Your task to perform on an android device: find photos in the google photos app Image 0: 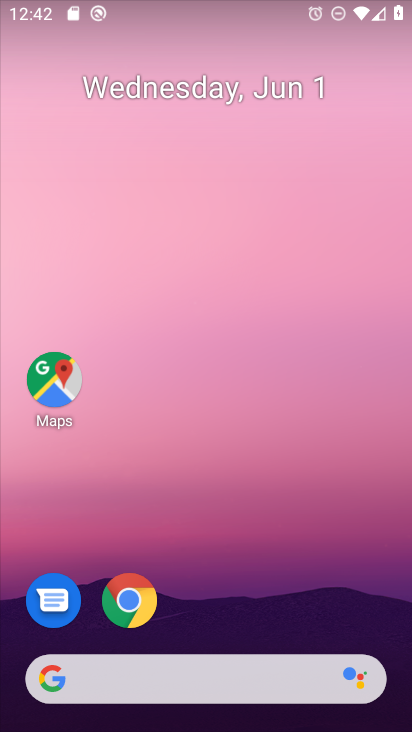
Step 0: drag from (216, 632) to (278, 21)
Your task to perform on an android device: find photos in the google photos app Image 1: 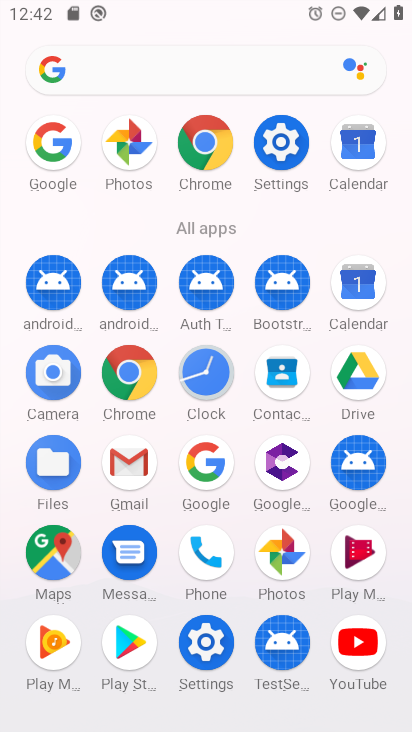
Step 1: click (286, 543)
Your task to perform on an android device: find photos in the google photos app Image 2: 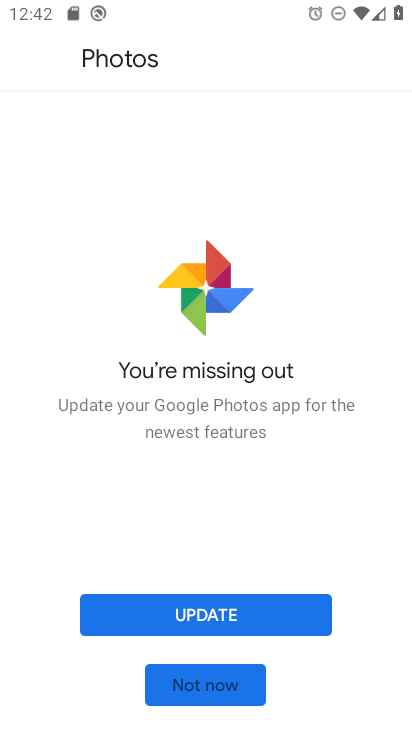
Step 2: click (206, 612)
Your task to perform on an android device: find photos in the google photos app Image 3: 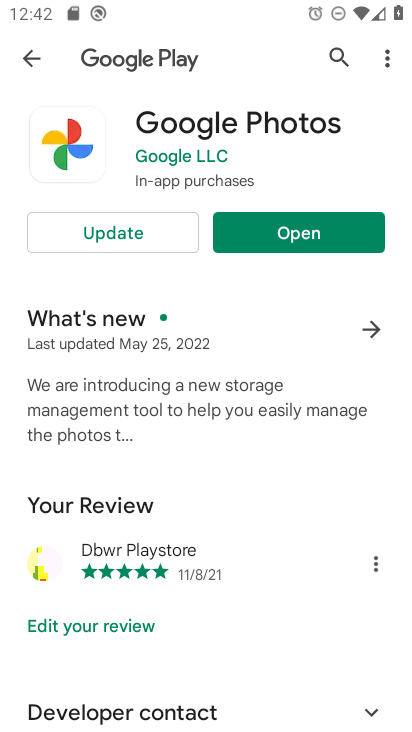
Step 3: click (137, 228)
Your task to perform on an android device: find photos in the google photos app Image 4: 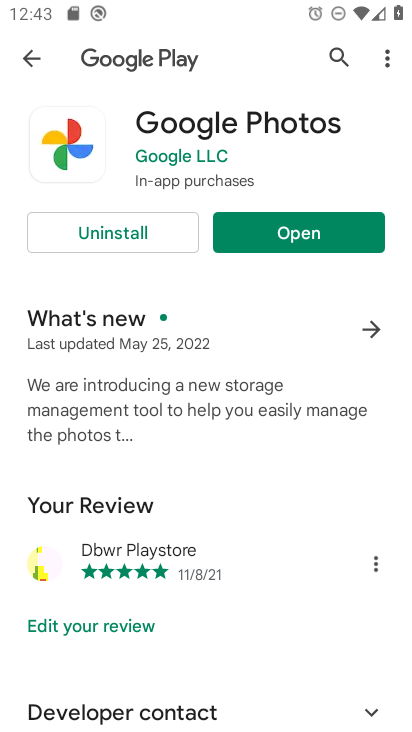
Step 4: click (303, 229)
Your task to perform on an android device: find photos in the google photos app Image 5: 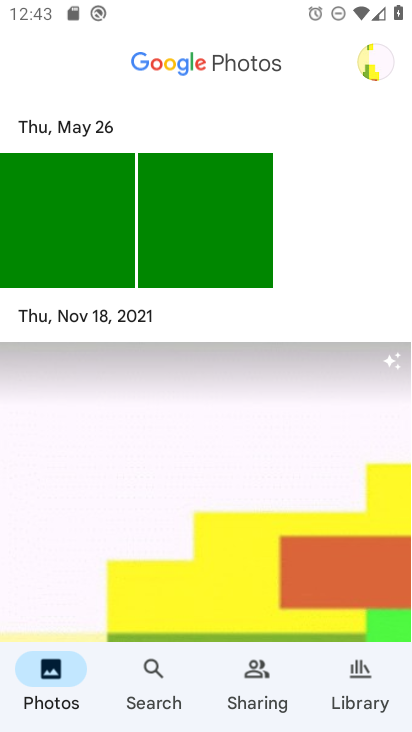
Step 5: task complete